Your task to perform on an android device: change keyboard looks Image 0: 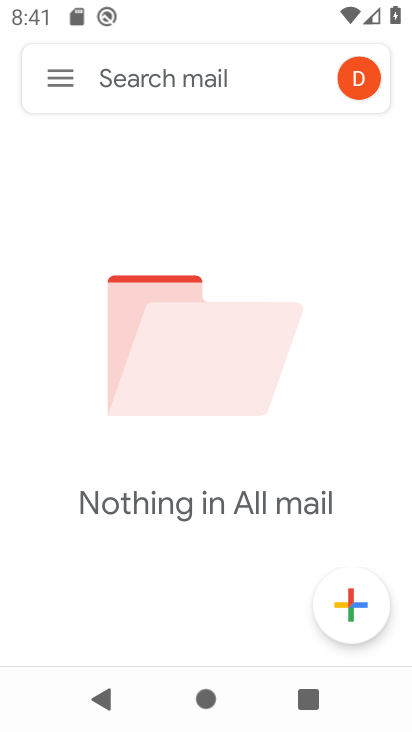
Step 0: press home button
Your task to perform on an android device: change keyboard looks Image 1: 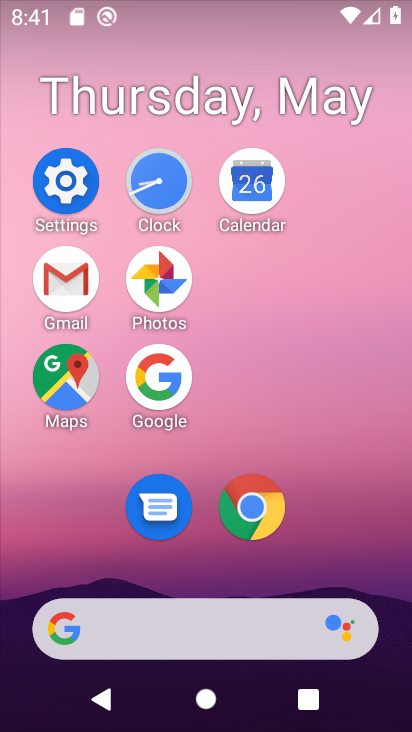
Step 1: click (73, 188)
Your task to perform on an android device: change keyboard looks Image 2: 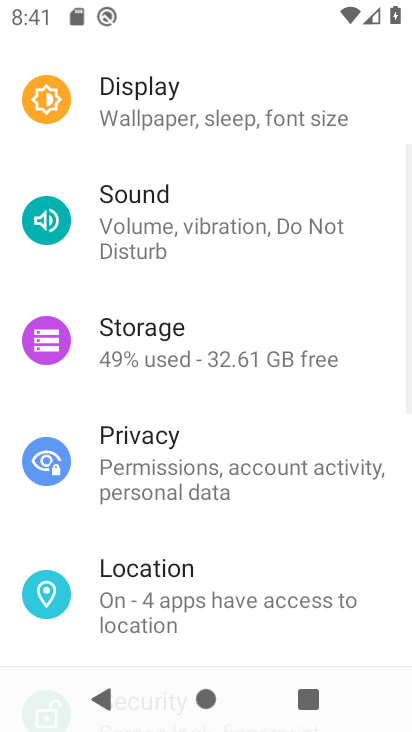
Step 2: drag from (256, 587) to (287, 131)
Your task to perform on an android device: change keyboard looks Image 3: 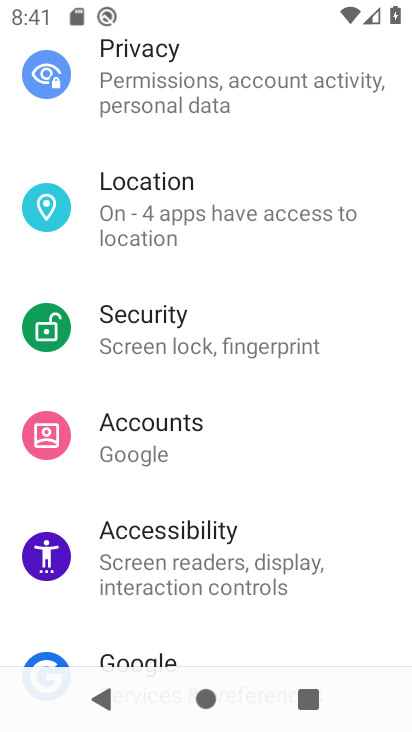
Step 3: drag from (216, 579) to (288, 188)
Your task to perform on an android device: change keyboard looks Image 4: 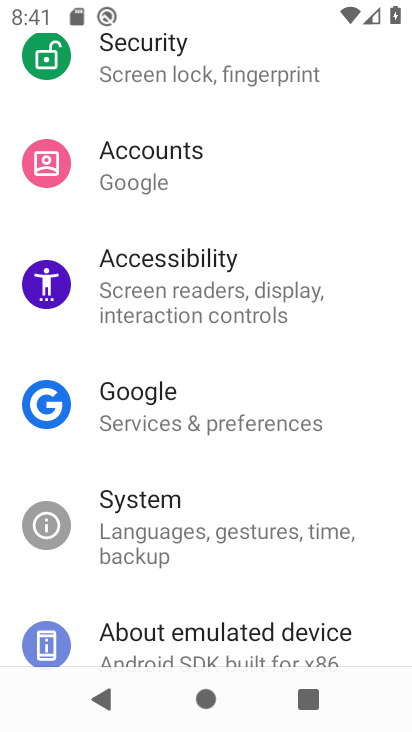
Step 4: click (200, 513)
Your task to perform on an android device: change keyboard looks Image 5: 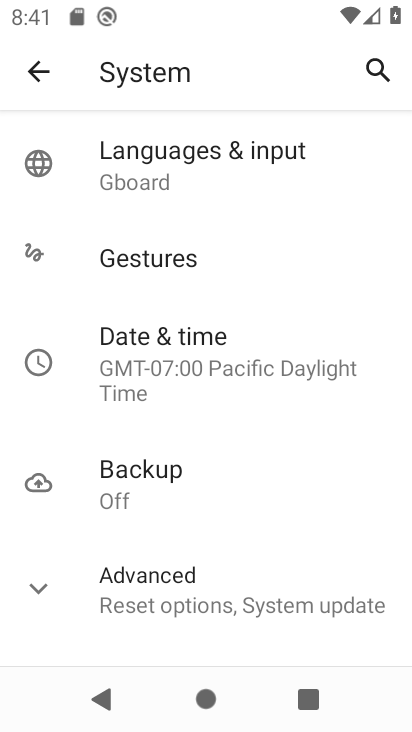
Step 5: click (268, 184)
Your task to perform on an android device: change keyboard looks Image 6: 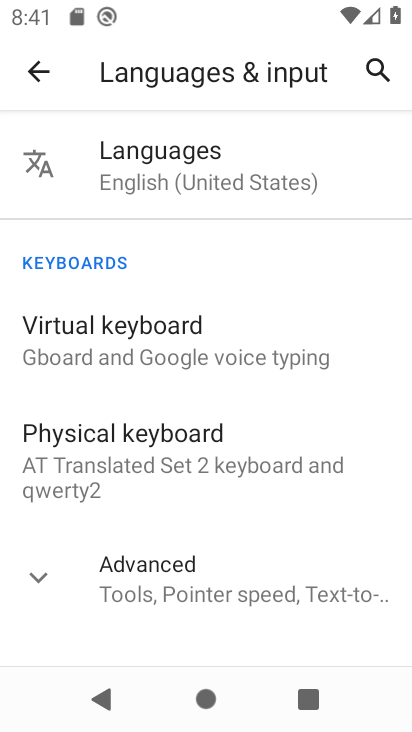
Step 6: click (224, 346)
Your task to perform on an android device: change keyboard looks Image 7: 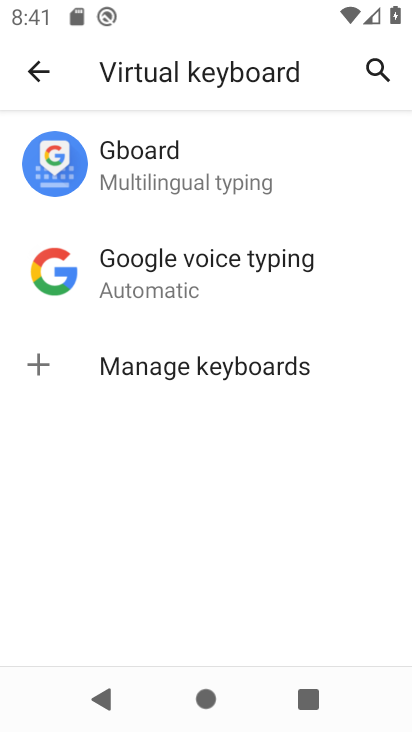
Step 7: click (193, 157)
Your task to perform on an android device: change keyboard looks Image 8: 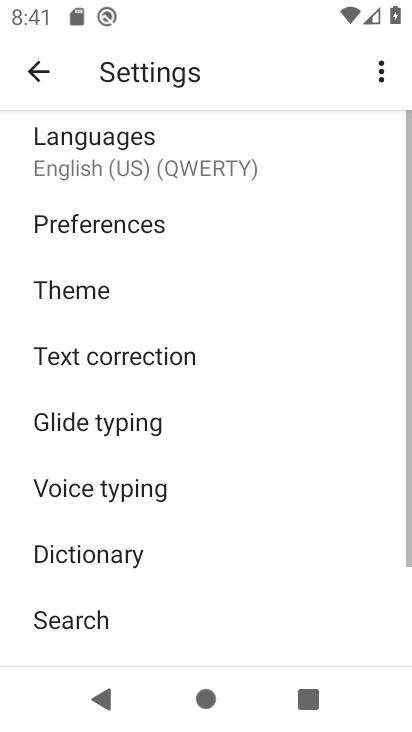
Step 8: click (108, 321)
Your task to perform on an android device: change keyboard looks Image 9: 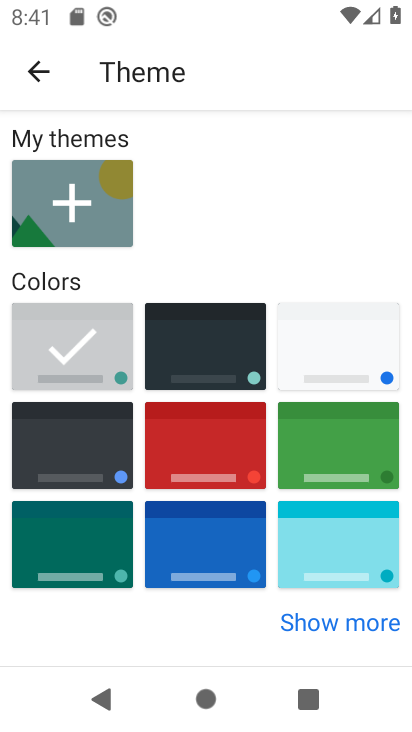
Step 9: click (227, 379)
Your task to perform on an android device: change keyboard looks Image 10: 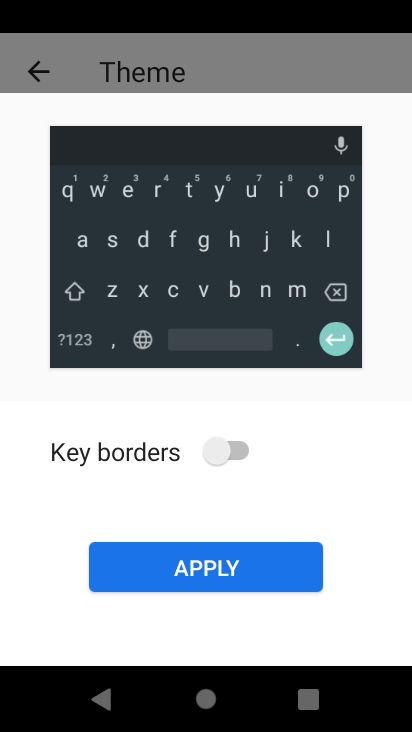
Step 10: click (247, 467)
Your task to perform on an android device: change keyboard looks Image 11: 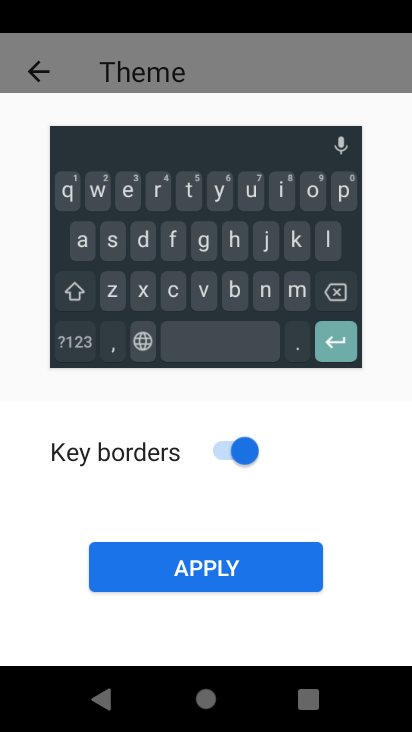
Step 11: click (208, 571)
Your task to perform on an android device: change keyboard looks Image 12: 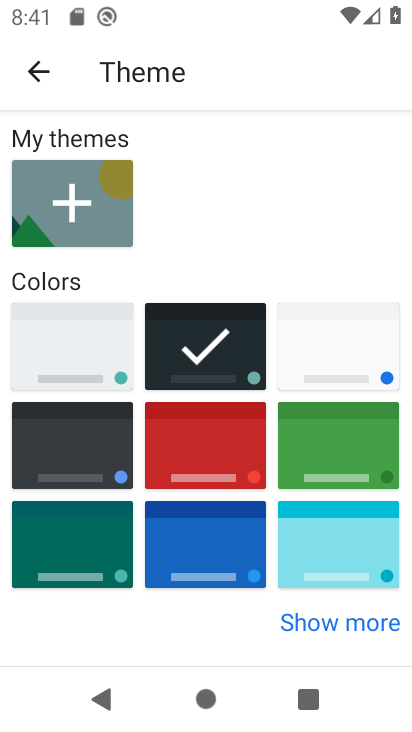
Step 12: task complete